Your task to perform on an android device: Show me popular videos on Youtube Image 0: 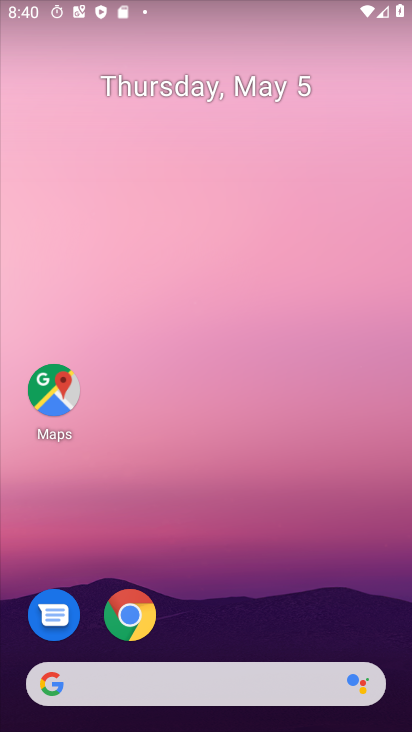
Step 0: drag from (211, 638) to (268, 175)
Your task to perform on an android device: Show me popular videos on Youtube Image 1: 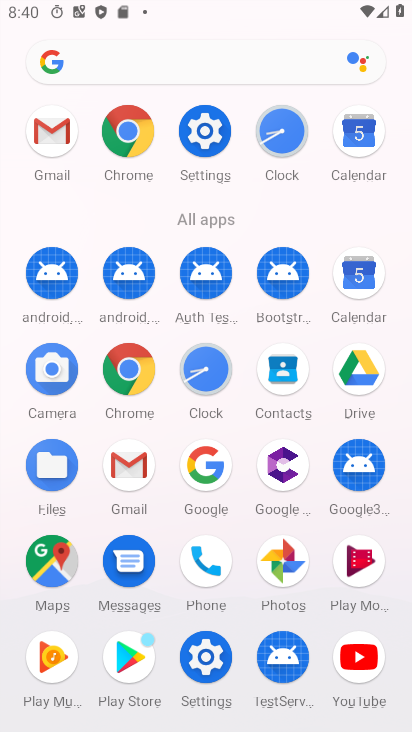
Step 1: click (349, 658)
Your task to perform on an android device: Show me popular videos on Youtube Image 2: 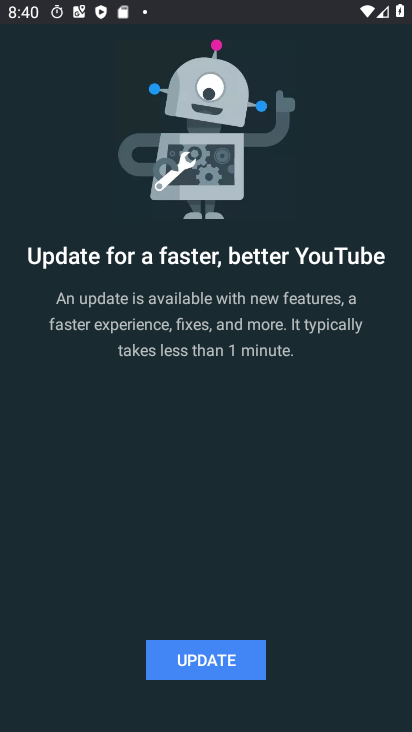
Step 2: click (234, 668)
Your task to perform on an android device: Show me popular videos on Youtube Image 3: 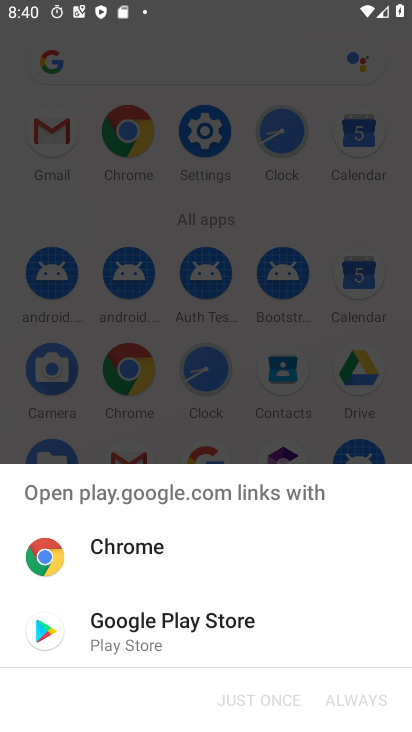
Step 3: click (131, 623)
Your task to perform on an android device: Show me popular videos on Youtube Image 4: 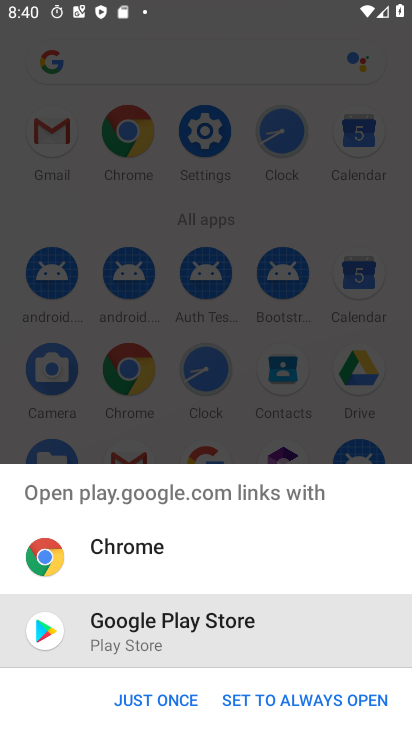
Step 4: click (145, 693)
Your task to perform on an android device: Show me popular videos on Youtube Image 5: 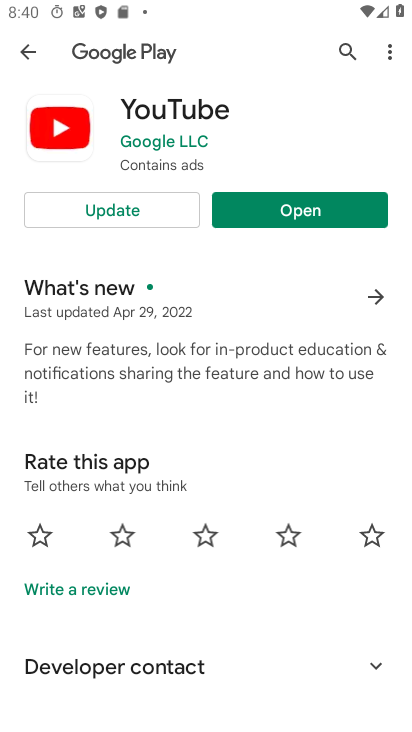
Step 5: click (145, 215)
Your task to perform on an android device: Show me popular videos on Youtube Image 6: 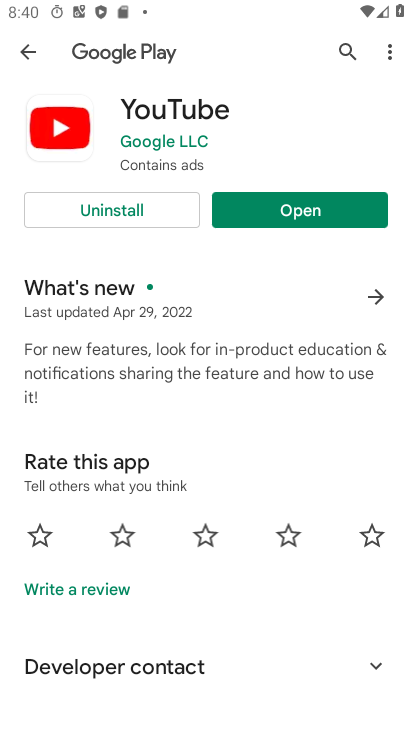
Step 6: click (335, 218)
Your task to perform on an android device: Show me popular videos on Youtube Image 7: 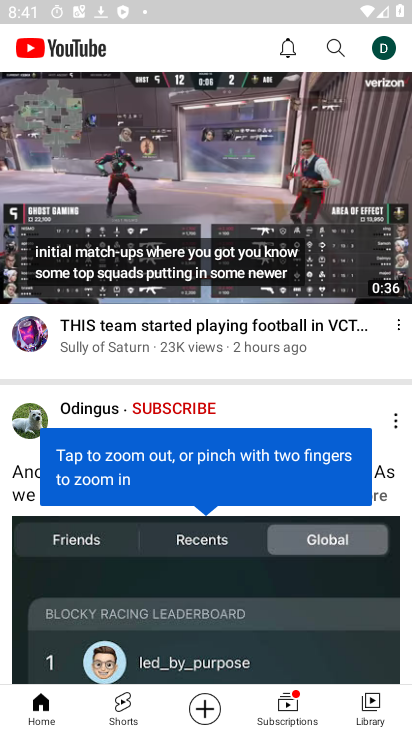
Step 7: drag from (105, 239) to (105, 454)
Your task to perform on an android device: Show me popular videos on Youtube Image 8: 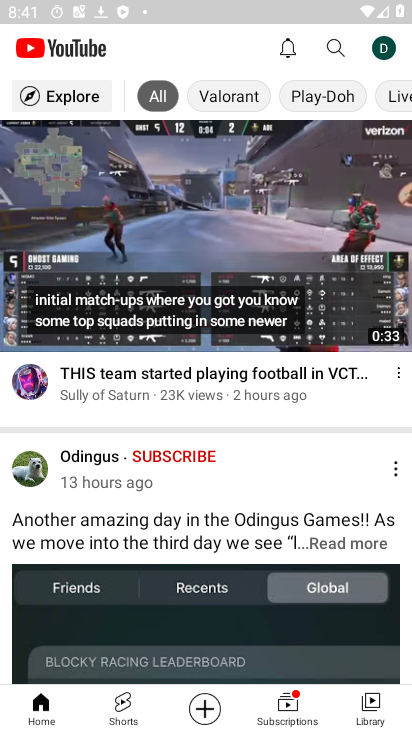
Step 8: click (66, 96)
Your task to perform on an android device: Show me popular videos on Youtube Image 9: 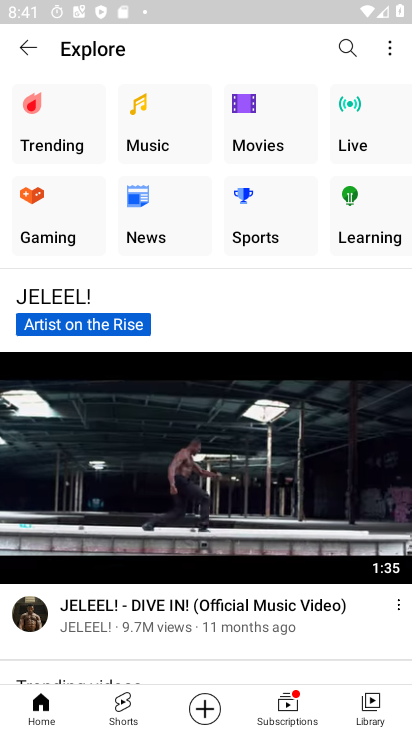
Step 9: click (49, 120)
Your task to perform on an android device: Show me popular videos on Youtube Image 10: 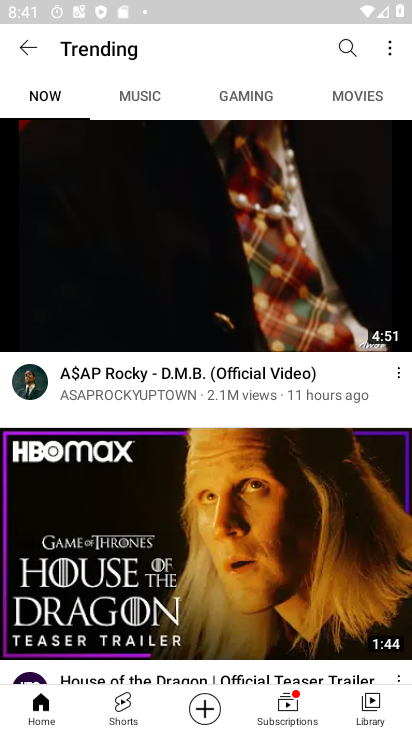
Step 10: task complete